Your task to perform on an android device: Open calendar and show me the third week of next month Image 0: 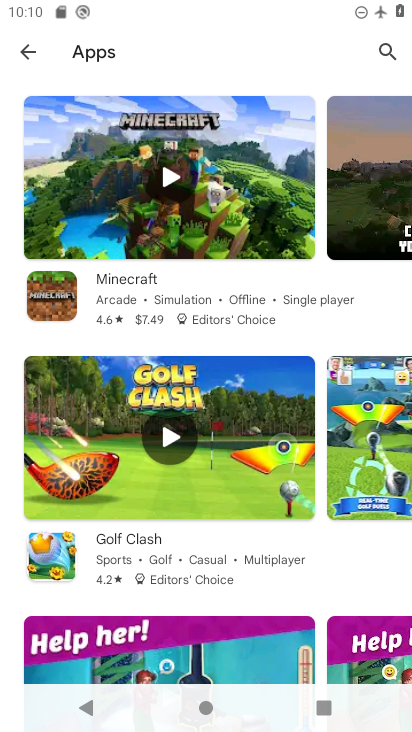
Step 0: press home button
Your task to perform on an android device: Open calendar and show me the third week of next month Image 1: 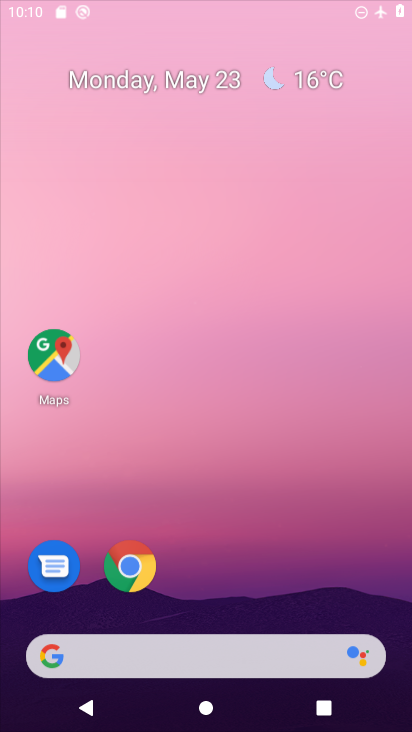
Step 1: drag from (189, 588) to (198, 1)
Your task to perform on an android device: Open calendar and show me the third week of next month Image 2: 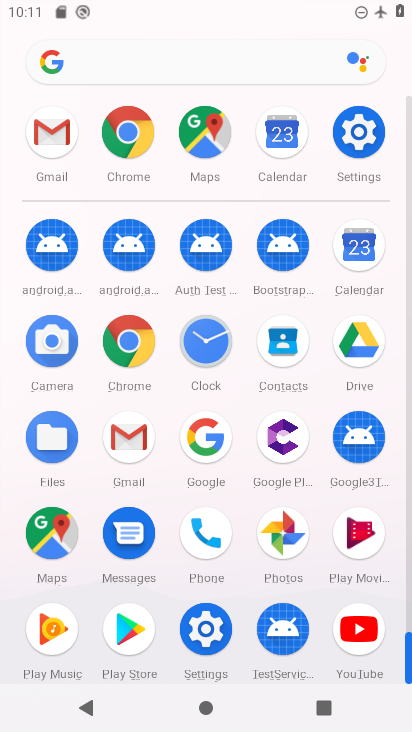
Step 2: click (347, 253)
Your task to perform on an android device: Open calendar and show me the third week of next month Image 3: 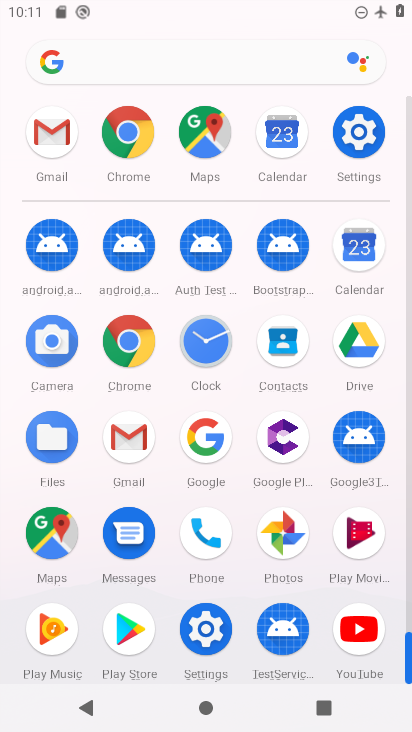
Step 3: click (348, 252)
Your task to perform on an android device: Open calendar and show me the third week of next month Image 4: 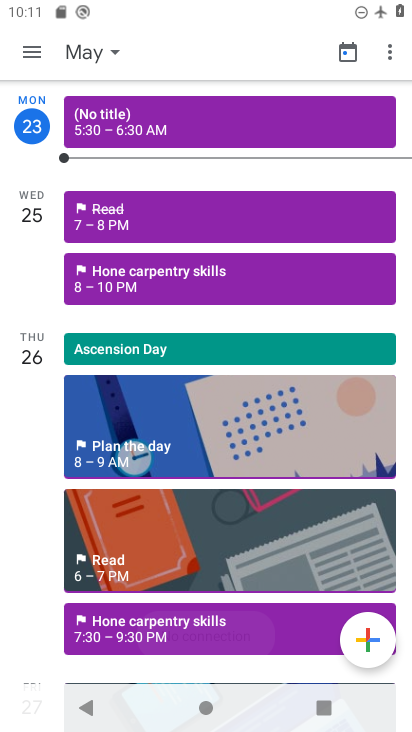
Step 4: drag from (189, 172) to (209, 516)
Your task to perform on an android device: Open calendar and show me the third week of next month Image 5: 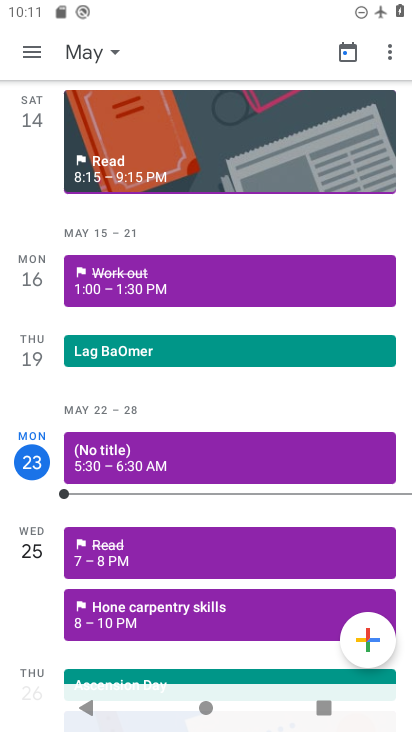
Step 5: click (86, 38)
Your task to perform on an android device: Open calendar and show me the third week of next month Image 6: 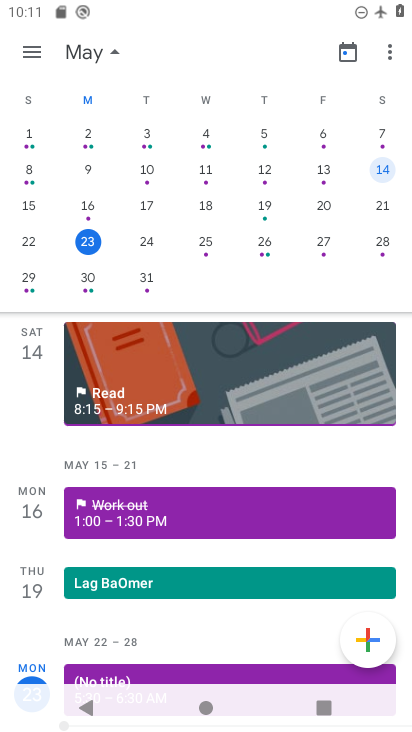
Step 6: drag from (375, 217) to (0, 249)
Your task to perform on an android device: Open calendar and show me the third week of next month Image 7: 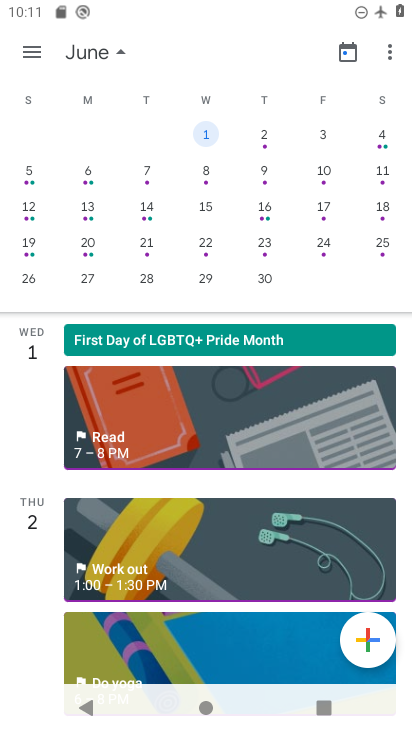
Step 7: click (204, 213)
Your task to perform on an android device: Open calendar and show me the third week of next month Image 8: 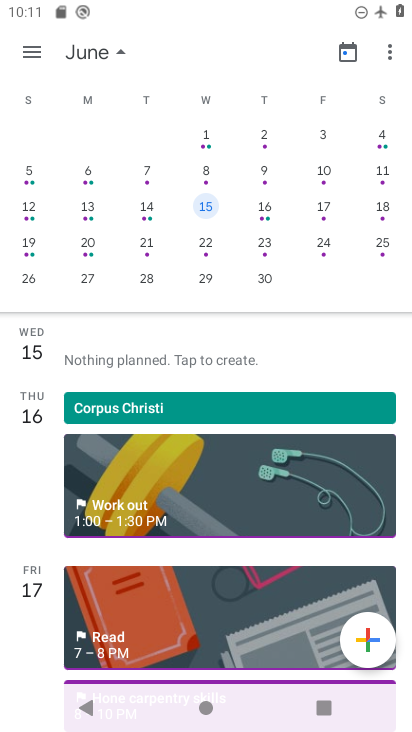
Step 8: task complete